Your task to perform on an android device: What's the weather? Image 0: 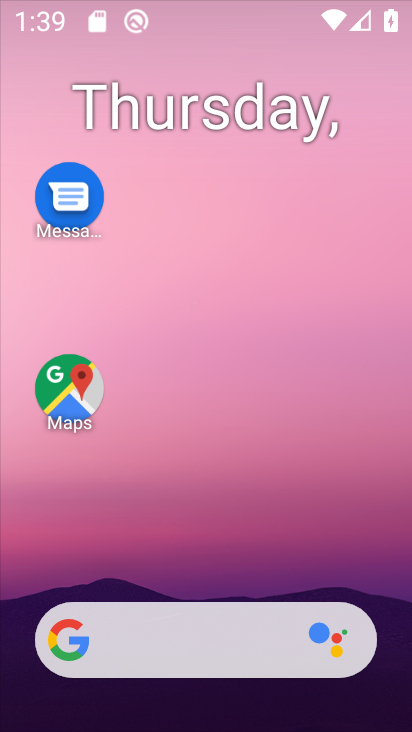
Step 0: drag from (175, 555) to (243, 185)
Your task to perform on an android device: What's the weather? Image 1: 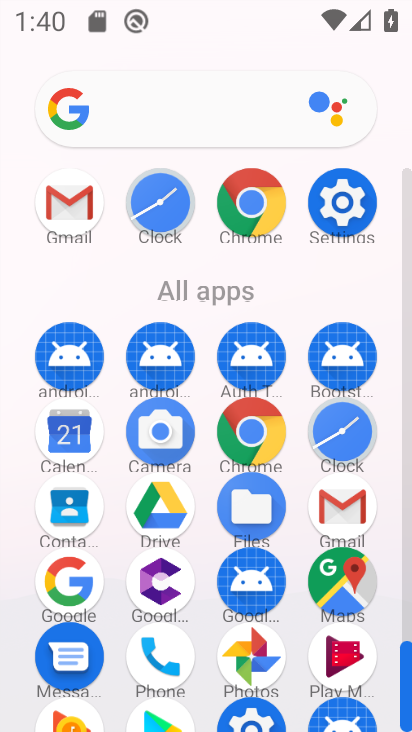
Step 1: click (247, 436)
Your task to perform on an android device: What's the weather? Image 2: 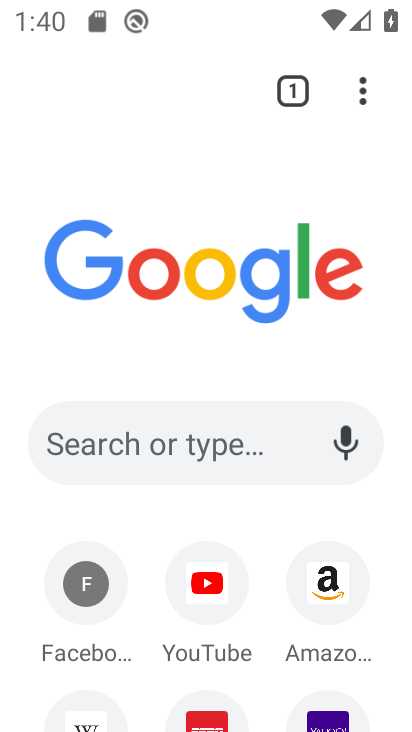
Step 2: click (94, 438)
Your task to perform on an android device: What's the weather? Image 3: 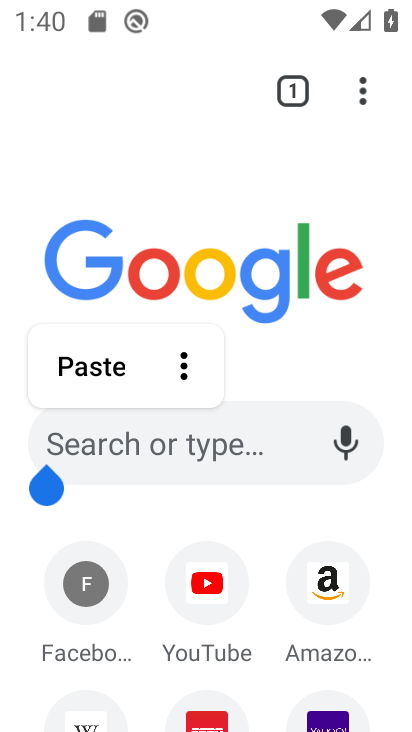
Step 3: click (127, 441)
Your task to perform on an android device: What's the weather? Image 4: 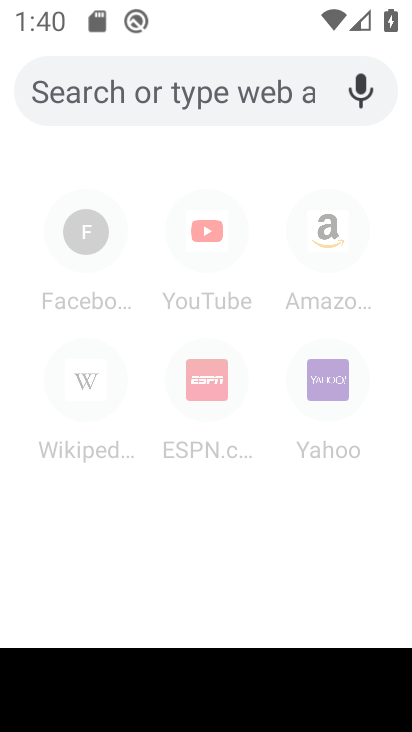
Step 4: type "weather"
Your task to perform on an android device: What's the weather? Image 5: 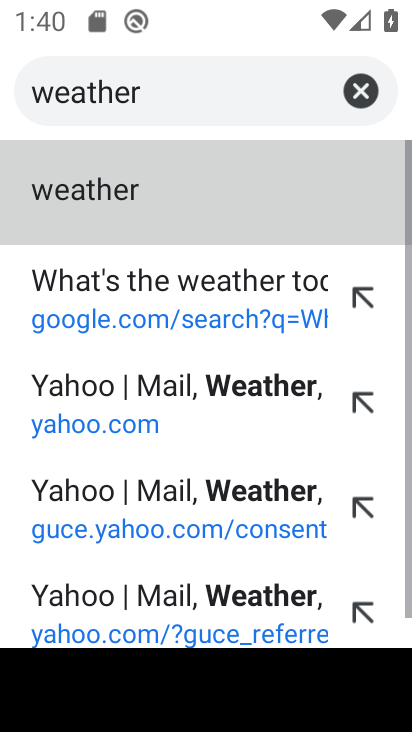
Step 5: click (174, 200)
Your task to perform on an android device: What's the weather? Image 6: 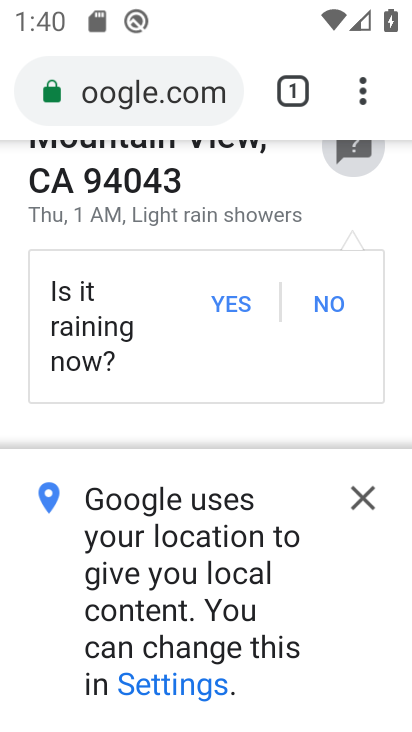
Step 6: task complete